Your task to perform on an android device: add a label to a message in the gmail app Image 0: 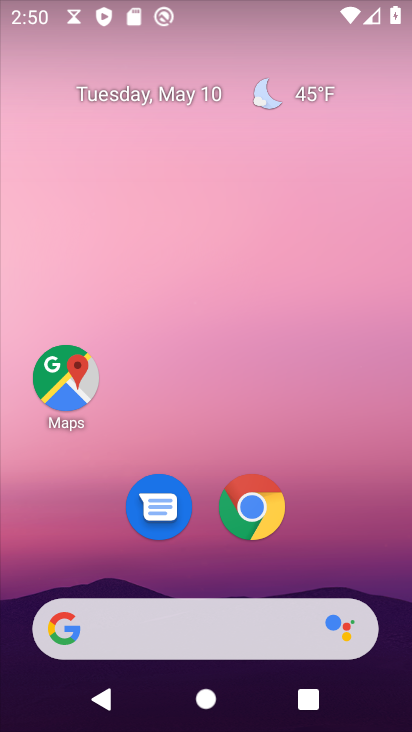
Step 0: drag from (311, 560) to (133, 99)
Your task to perform on an android device: add a label to a message in the gmail app Image 1: 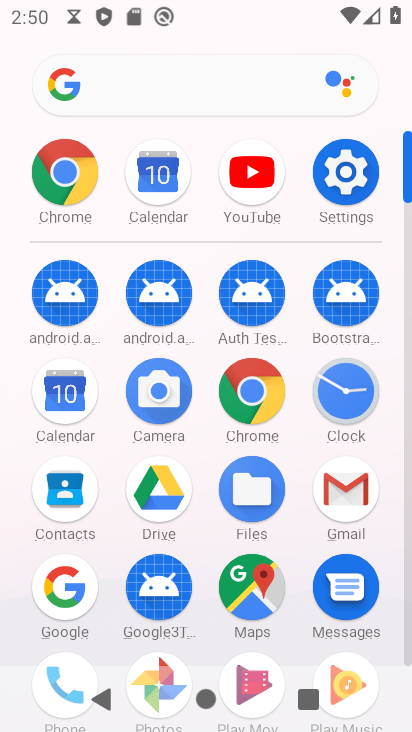
Step 1: click (356, 486)
Your task to perform on an android device: add a label to a message in the gmail app Image 2: 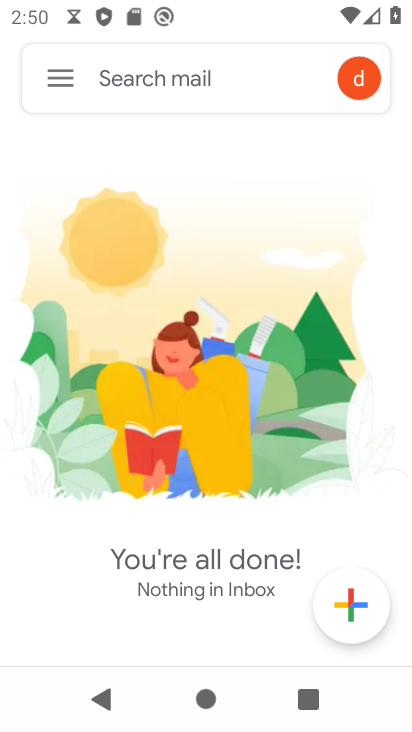
Step 2: click (63, 74)
Your task to perform on an android device: add a label to a message in the gmail app Image 3: 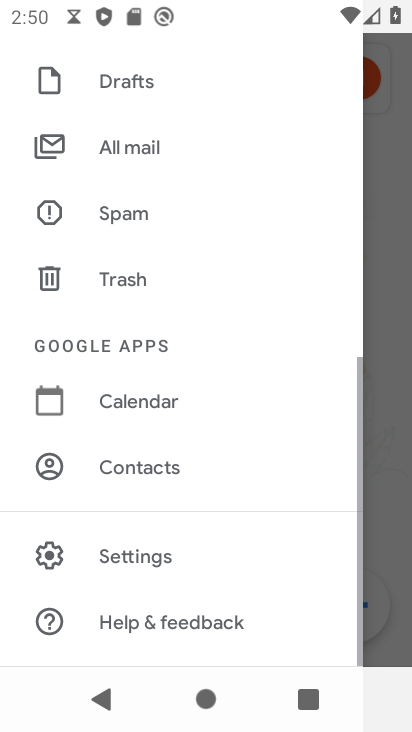
Step 3: drag from (119, 150) to (168, 600)
Your task to perform on an android device: add a label to a message in the gmail app Image 4: 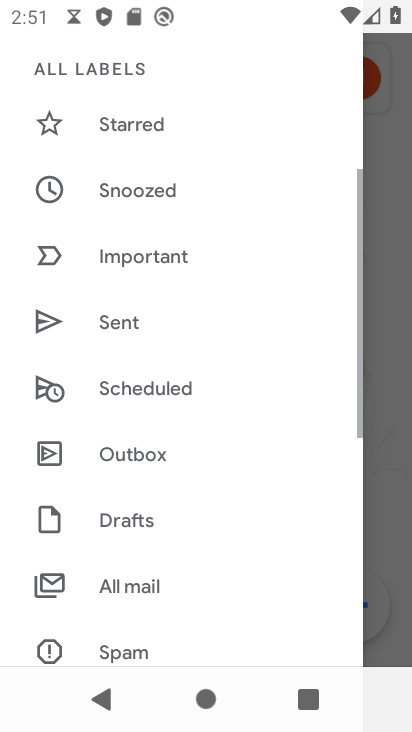
Step 4: drag from (216, 174) to (175, 545)
Your task to perform on an android device: add a label to a message in the gmail app Image 5: 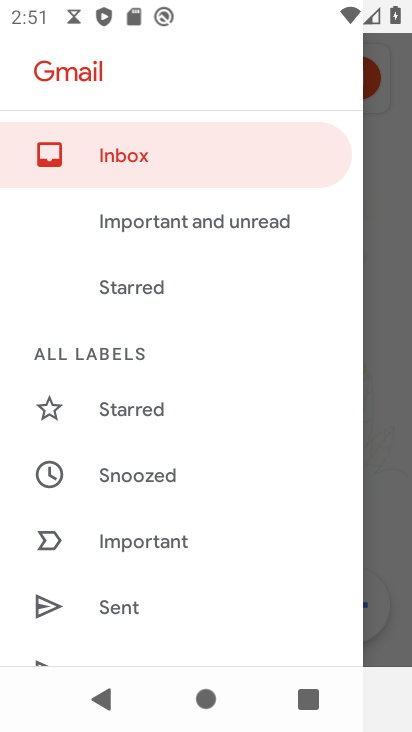
Step 5: click (378, 181)
Your task to perform on an android device: add a label to a message in the gmail app Image 6: 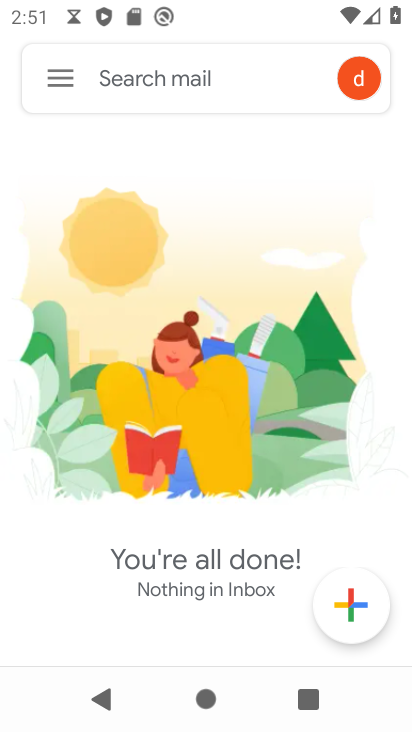
Step 6: task complete